Your task to perform on an android device: turn off data saver in the chrome app Image 0: 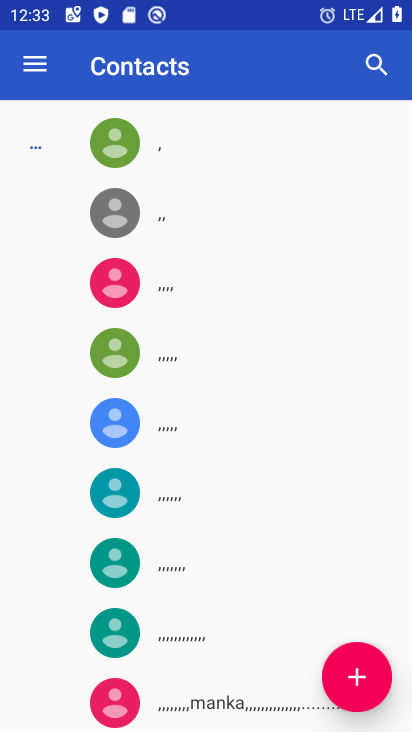
Step 0: drag from (393, 651) to (375, 184)
Your task to perform on an android device: turn off data saver in the chrome app Image 1: 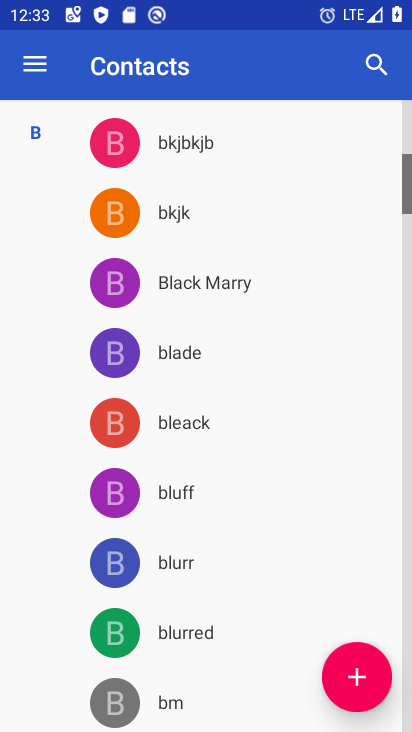
Step 1: press home button
Your task to perform on an android device: turn off data saver in the chrome app Image 2: 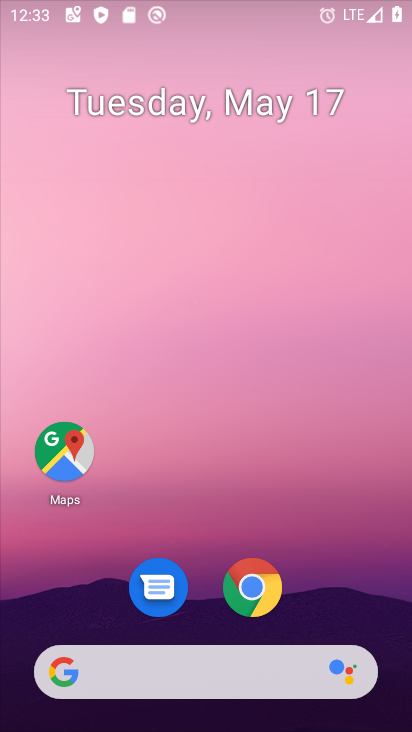
Step 2: drag from (382, 639) to (336, 104)
Your task to perform on an android device: turn off data saver in the chrome app Image 3: 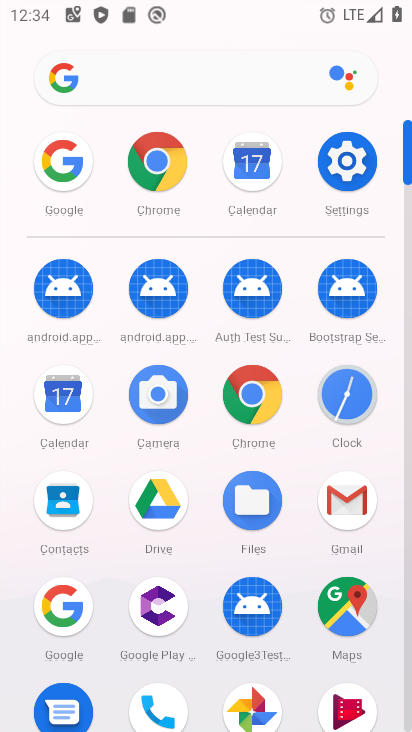
Step 3: click (256, 407)
Your task to perform on an android device: turn off data saver in the chrome app Image 4: 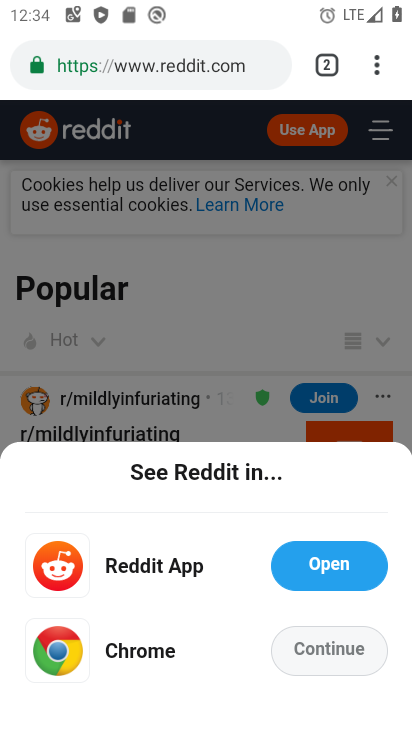
Step 4: press back button
Your task to perform on an android device: turn off data saver in the chrome app Image 5: 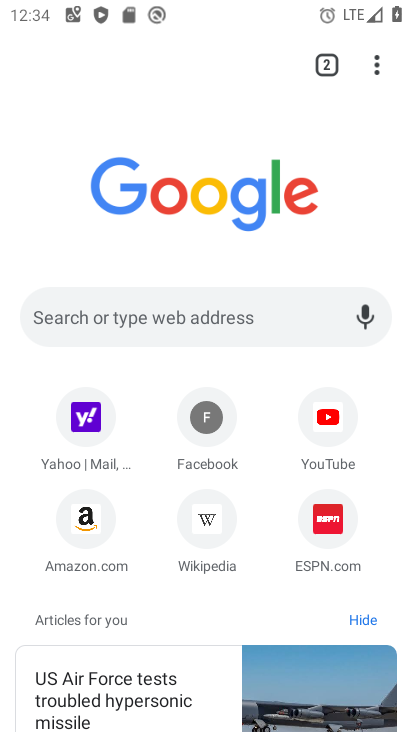
Step 5: click (378, 54)
Your task to perform on an android device: turn off data saver in the chrome app Image 6: 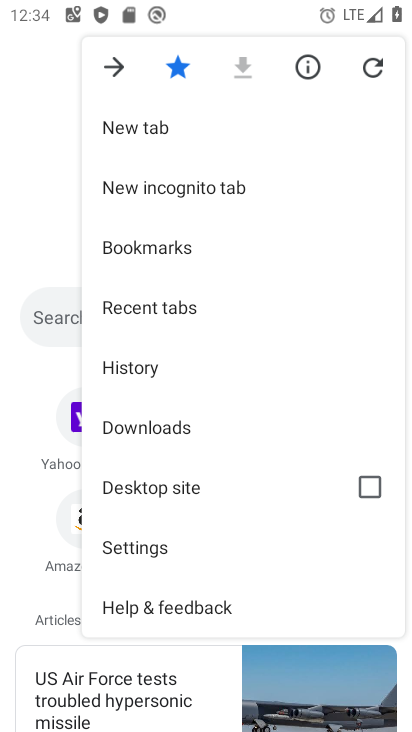
Step 6: click (204, 555)
Your task to perform on an android device: turn off data saver in the chrome app Image 7: 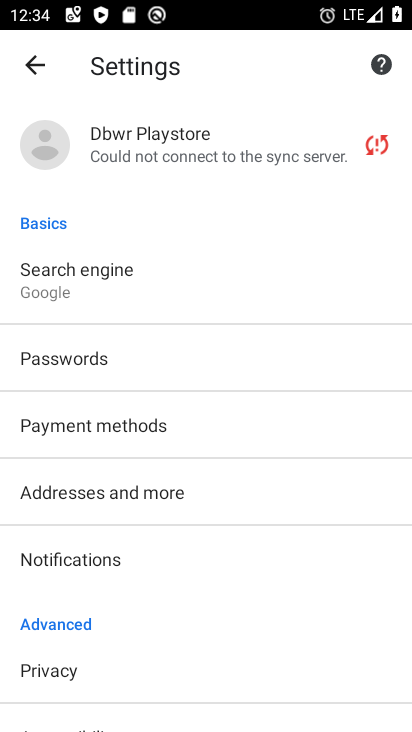
Step 7: drag from (147, 679) to (190, 246)
Your task to perform on an android device: turn off data saver in the chrome app Image 8: 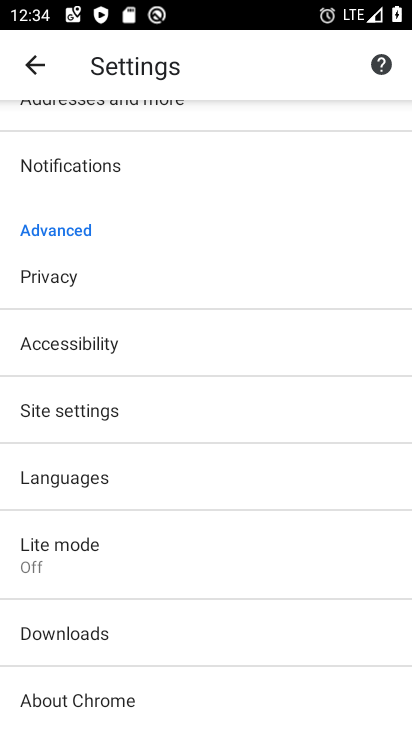
Step 8: click (61, 569)
Your task to perform on an android device: turn off data saver in the chrome app Image 9: 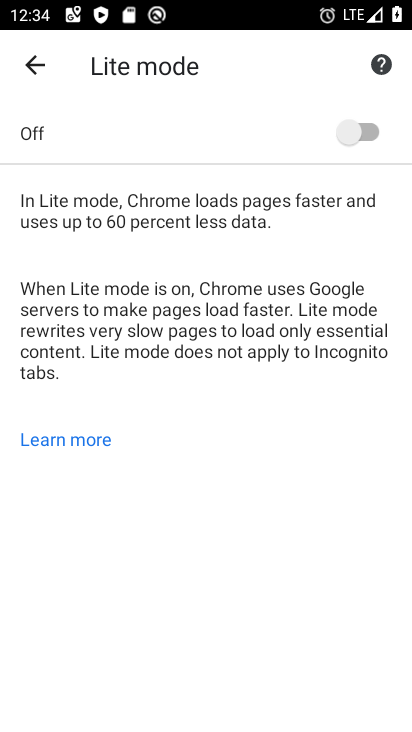
Step 9: task complete